Your task to perform on an android device: uninstall "NewsBreak: Local News & Alerts" Image 0: 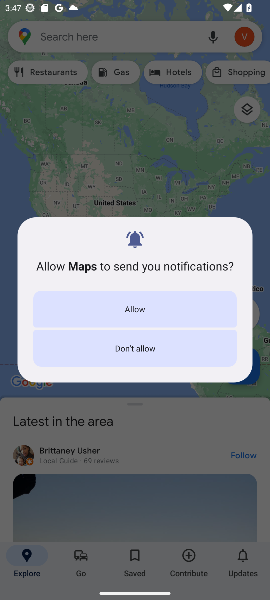
Step 0: press home button
Your task to perform on an android device: uninstall "NewsBreak: Local News & Alerts" Image 1: 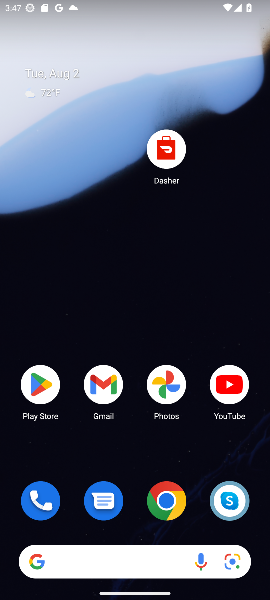
Step 1: click (45, 382)
Your task to perform on an android device: uninstall "NewsBreak: Local News & Alerts" Image 2: 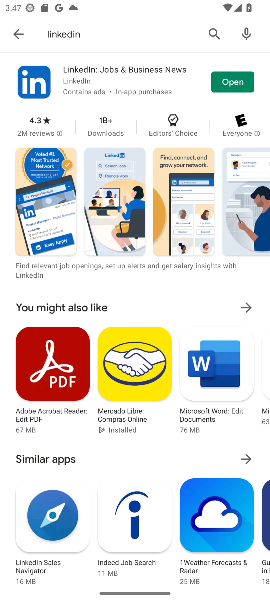
Step 2: click (214, 34)
Your task to perform on an android device: uninstall "NewsBreak: Local News & Alerts" Image 3: 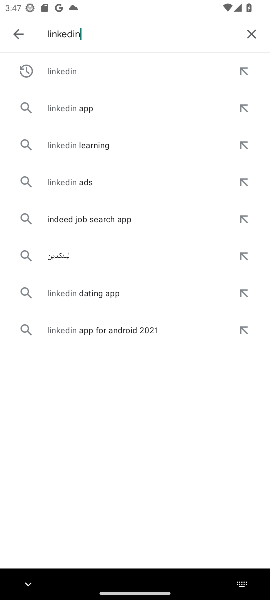
Step 3: click (254, 32)
Your task to perform on an android device: uninstall "NewsBreak: Local News & Alerts" Image 4: 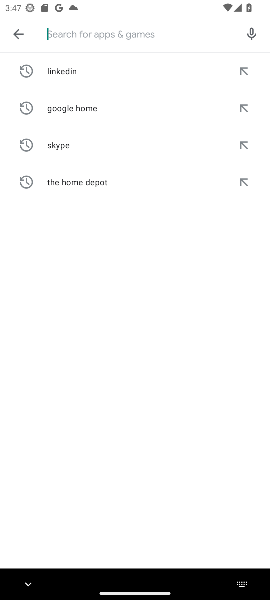
Step 4: type "NewsBreak: Local News & Alerts"
Your task to perform on an android device: uninstall "NewsBreak: Local News & Alerts" Image 5: 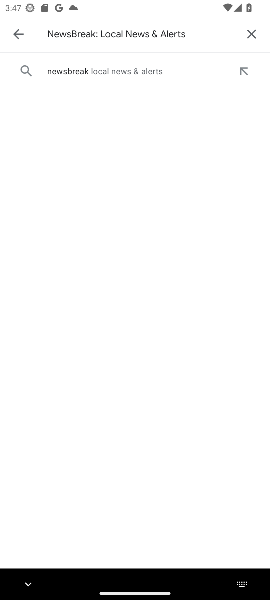
Step 5: click (78, 72)
Your task to perform on an android device: uninstall "NewsBreak: Local News & Alerts" Image 6: 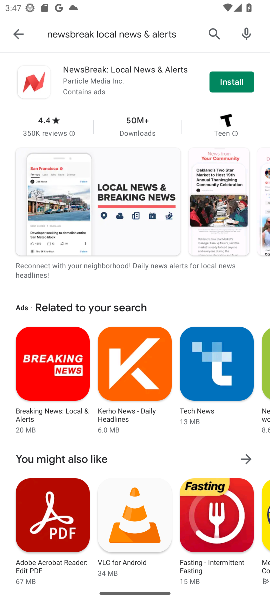
Step 6: task complete